Your task to perform on an android device: turn off picture-in-picture Image 0: 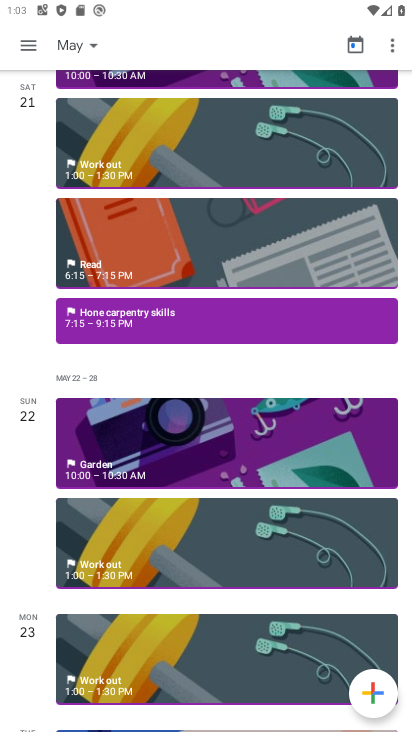
Step 0: press home button
Your task to perform on an android device: turn off picture-in-picture Image 1: 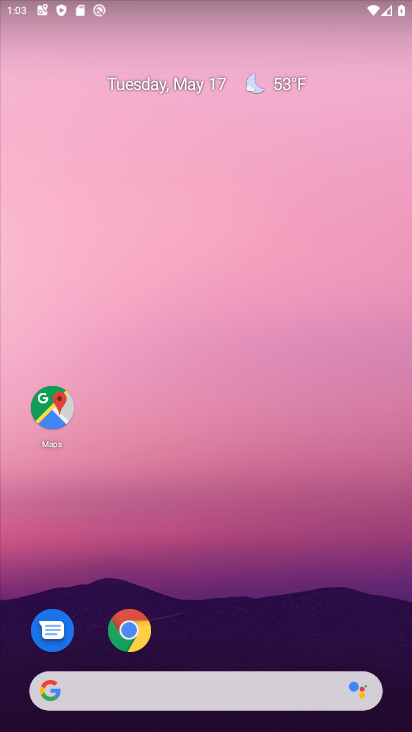
Step 1: drag from (278, 653) to (394, 322)
Your task to perform on an android device: turn off picture-in-picture Image 2: 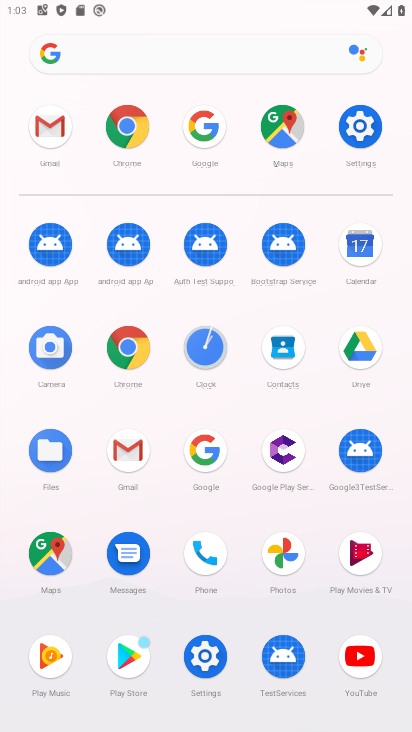
Step 2: click (352, 147)
Your task to perform on an android device: turn off picture-in-picture Image 3: 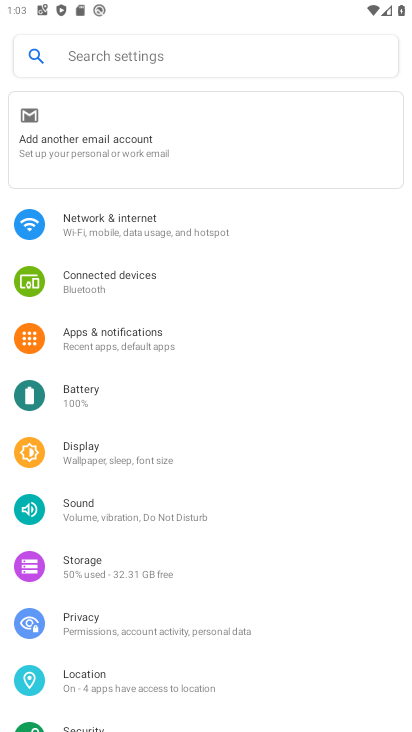
Step 3: drag from (233, 534) to (257, 454)
Your task to perform on an android device: turn off picture-in-picture Image 4: 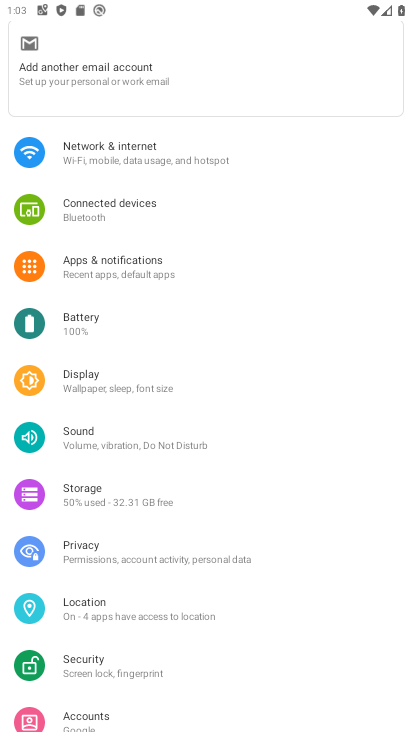
Step 4: click (160, 273)
Your task to perform on an android device: turn off picture-in-picture Image 5: 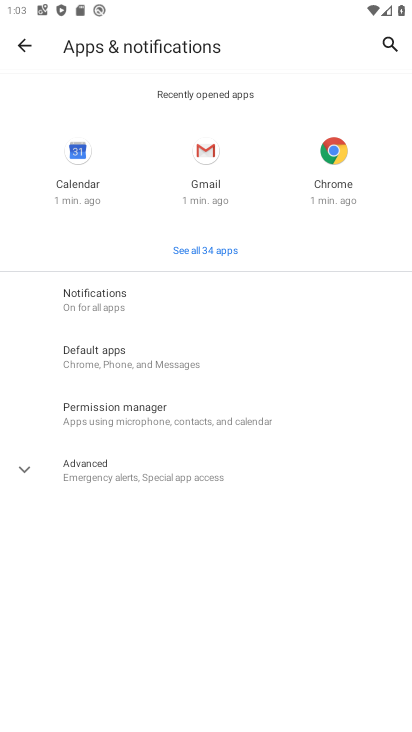
Step 5: click (126, 467)
Your task to perform on an android device: turn off picture-in-picture Image 6: 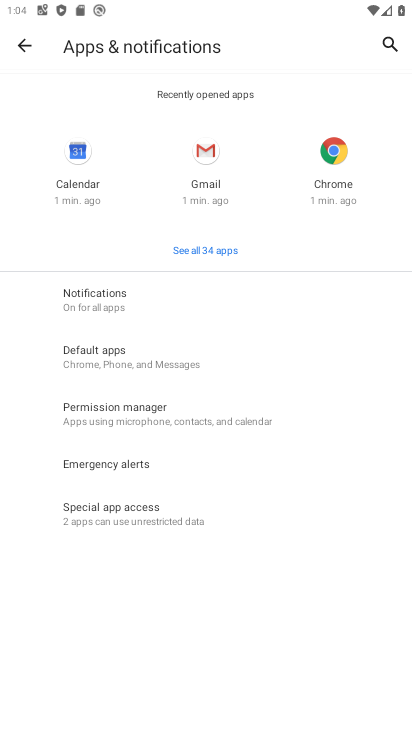
Step 6: click (140, 519)
Your task to perform on an android device: turn off picture-in-picture Image 7: 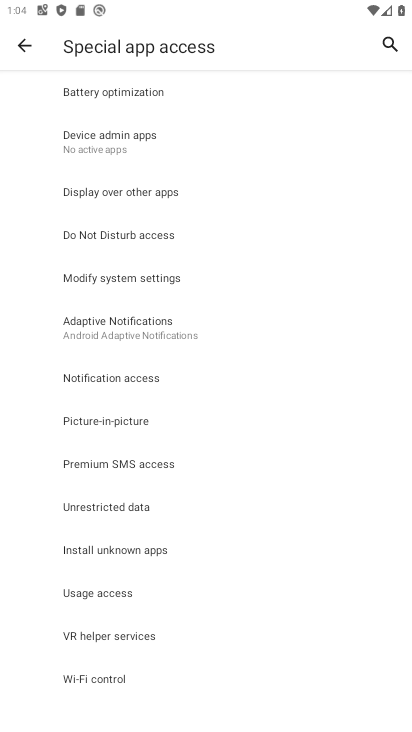
Step 7: click (142, 420)
Your task to perform on an android device: turn off picture-in-picture Image 8: 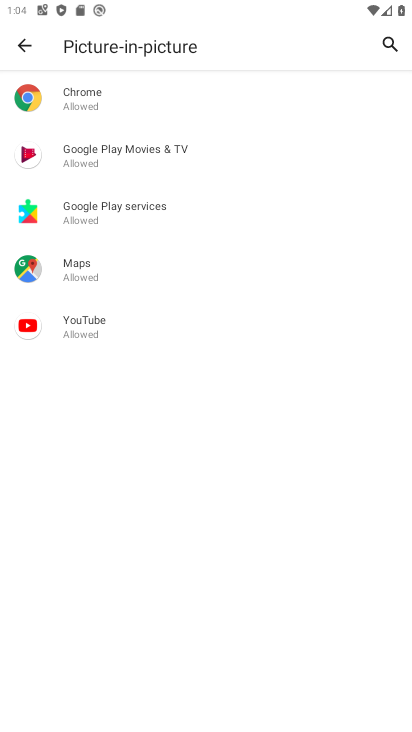
Step 8: click (142, 420)
Your task to perform on an android device: turn off picture-in-picture Image 9: 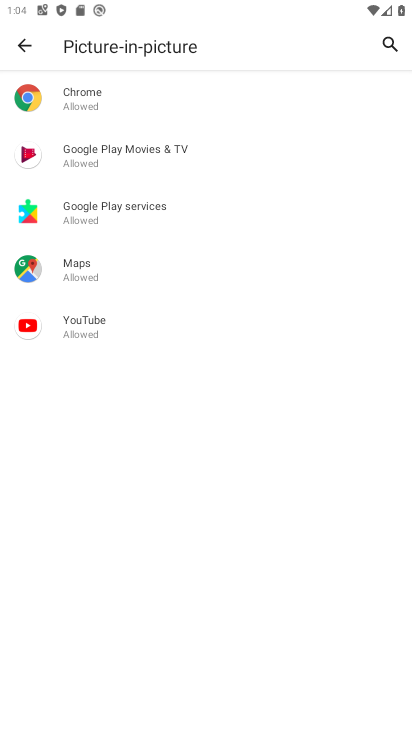
Step 9: click (177, 97)
Your task to perform on an android device: turn off picture-in-picture Image 10: 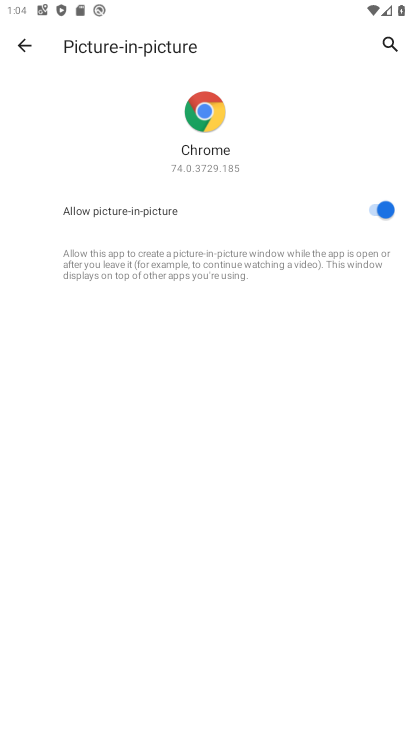
Step 10: click (380, 206)
Your task to perform on an android device: turn off picture-in-picture Image 11: 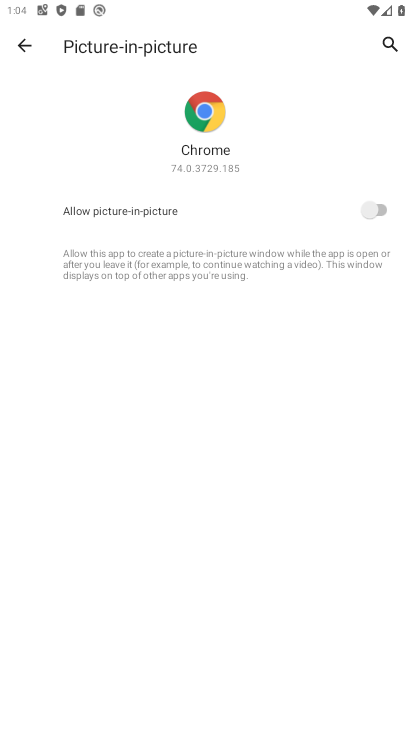
Step 11: task complete